Your task to perform on an android device: check android version Image 0: 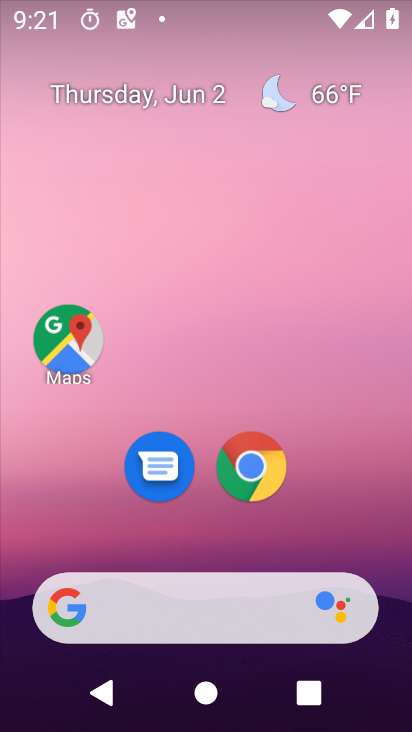
Step 0: press home button
Your task to perform on an android device: check android version Image 1: 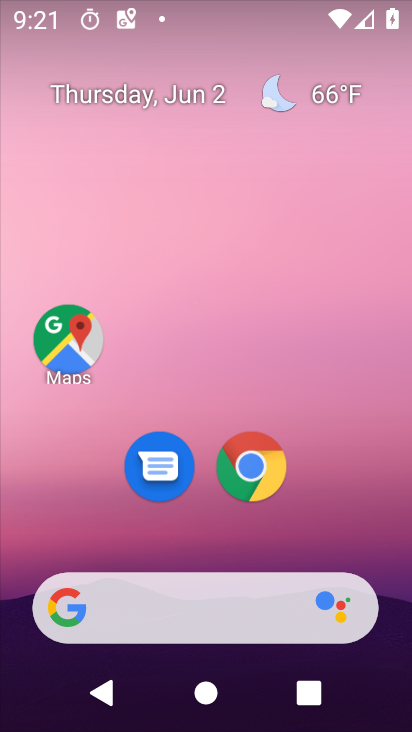
Step 1: drag from (21, 608) to (337, 150)
Your task to perform on an android device: check android version Image 2: 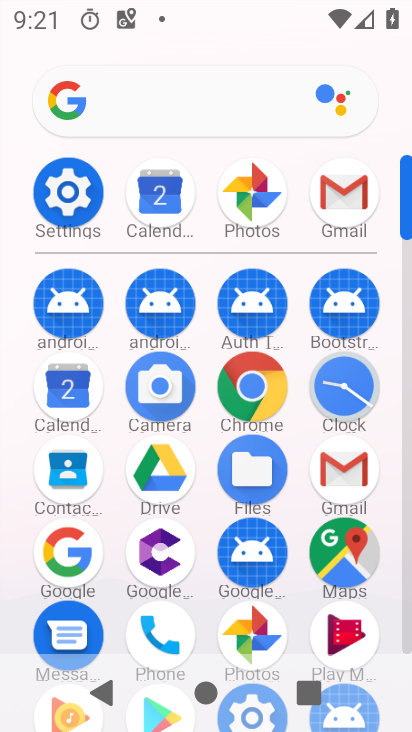
Step 2: click (84, 187)
Your task to perform on an android device: check android version Image 3: 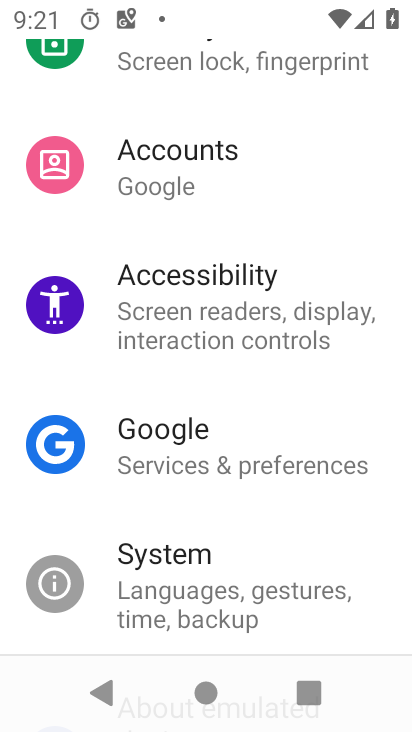
Step 3: drag from (142, 324) to (234, 182)
Your task to perform on an android device: check android version Image 4: 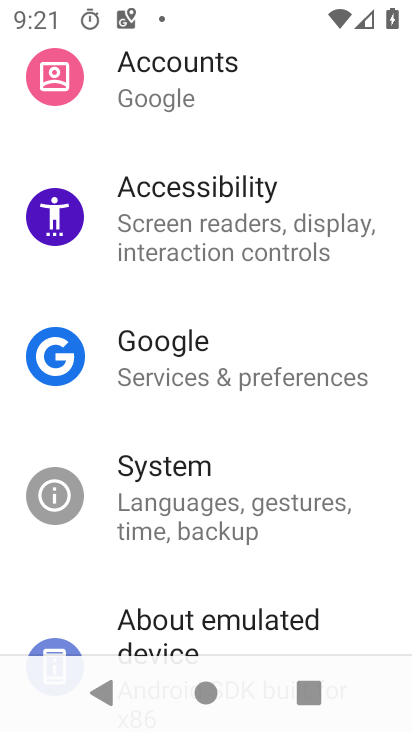
Step 4: drag from (31, 507) to (296, 108)
Your task to perform on an android device: check android version Image 5: 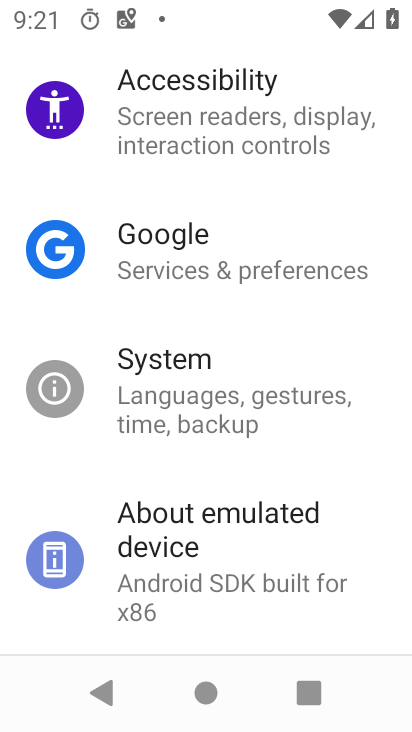
Step 5: click (201, 540)
Your task to perform on an android device: check android version Image 6: 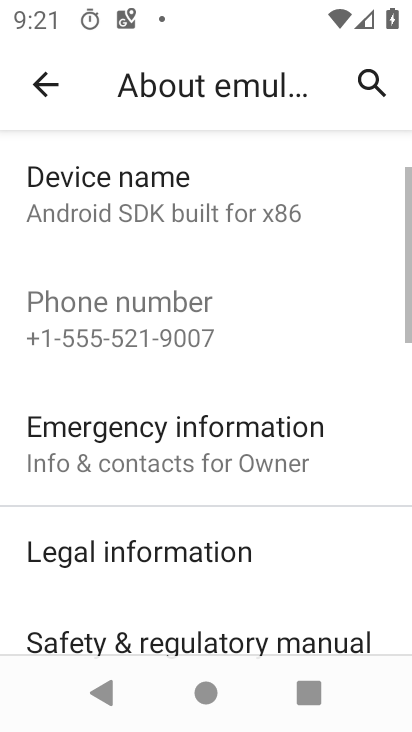
Step 6: drag from (32, 498) to (261, 152)
Your task to perform on an android device: check android version Image 7: 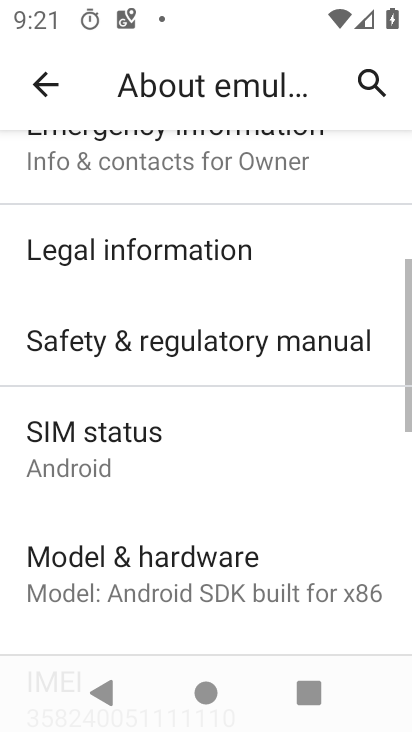
Step 7: drag from (30, 543) to (294, 193)
Your task to perform on an android device: check android version Image 8: 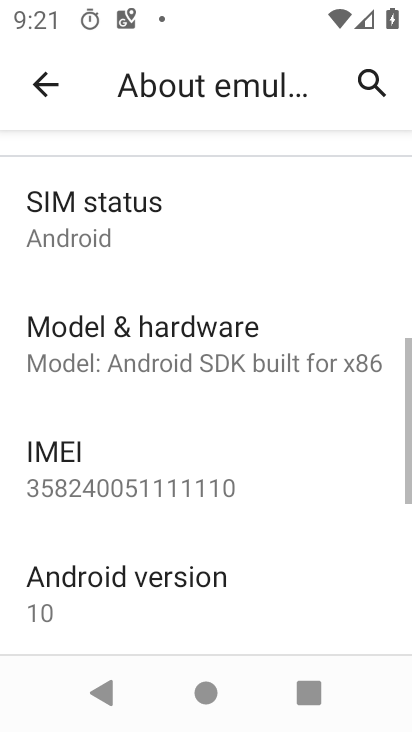
Step 8: drag from (3, 627) to (286, 238)
Your task to perform on an android device: check android version Image 9: 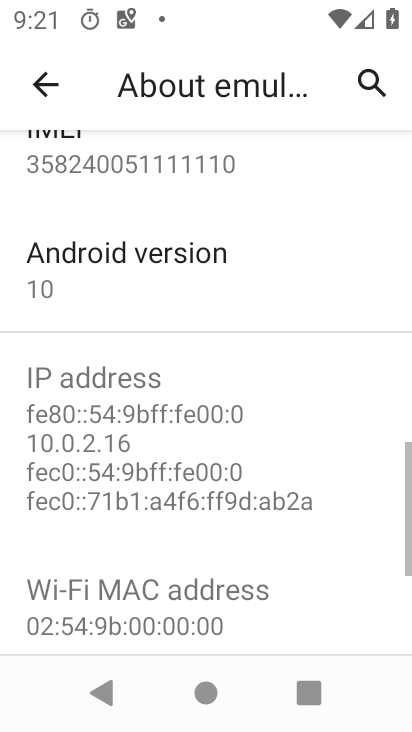
Step 9: click (43, 276)
Your task to perform on an android device: check android version Image 10: 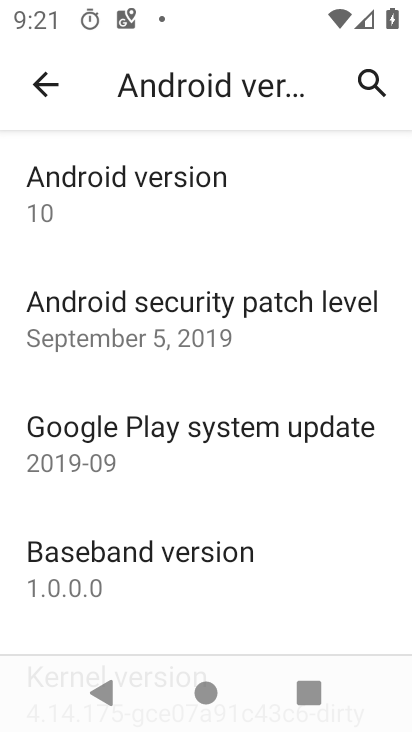
Step 10: task complete